Your task to perform on an android device: delete the emails in spam in the gmail app Image 0: 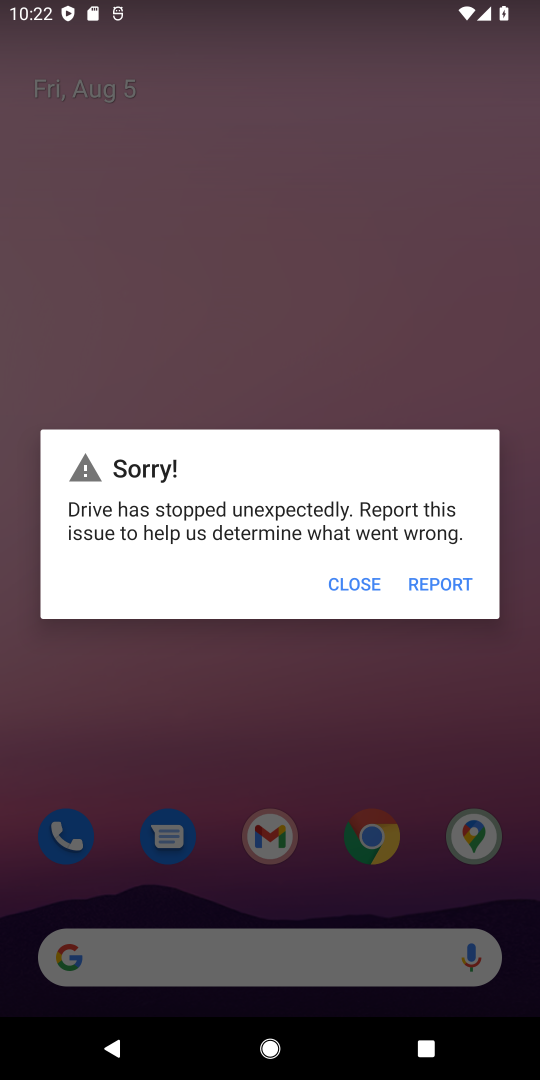
Step 0: press home button
Your task to perform on an android device: delete the emails in spam in the gmail app Image 1: 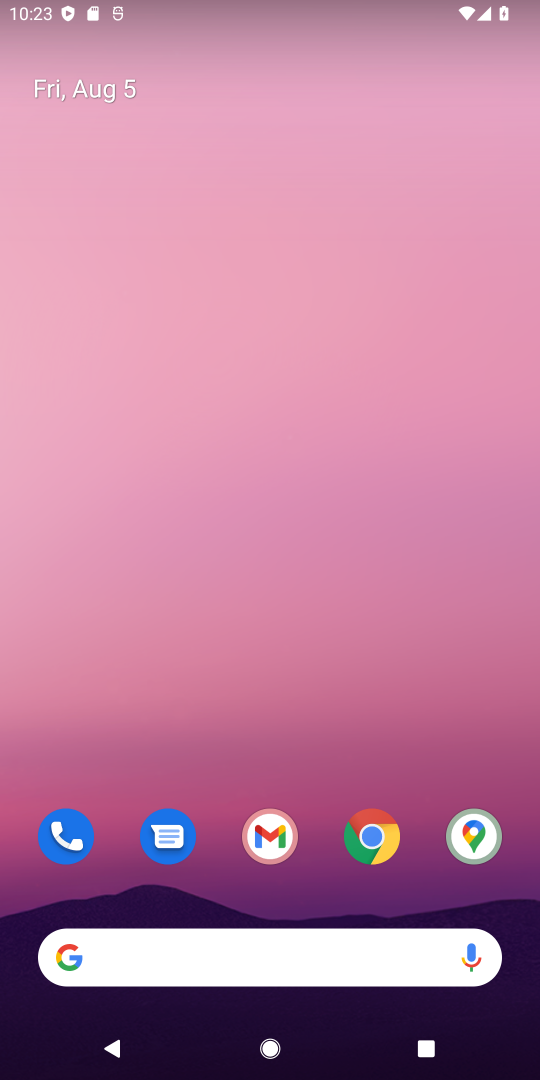
Step 1: drag from (424, 855) to (381, 212)
Your task to perform on an android device: delete the emails in spam in the gmail app Image 2: 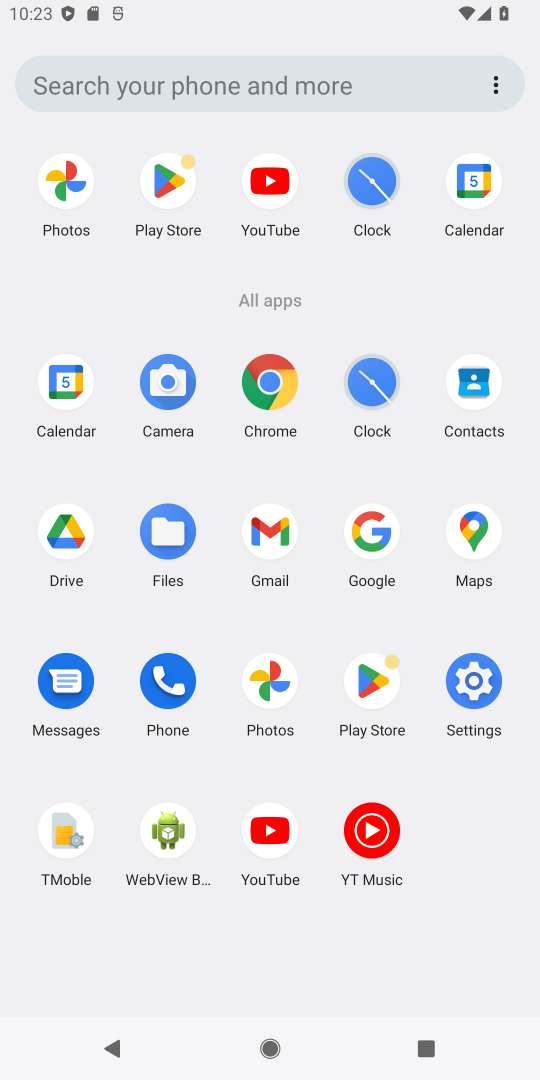
Step 2: click (265, 550)
Your task to perform on an android device: delete the emails in spam in the gmail app Image 3: 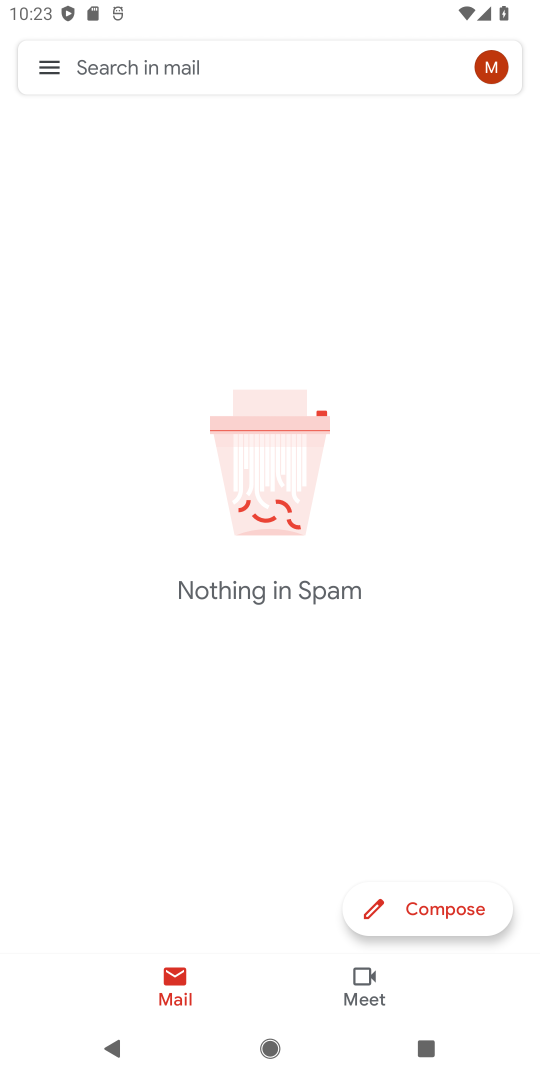
Step 3: task complete